Your task to perform on an android device: turn on data saver in the chrome app Image 0: 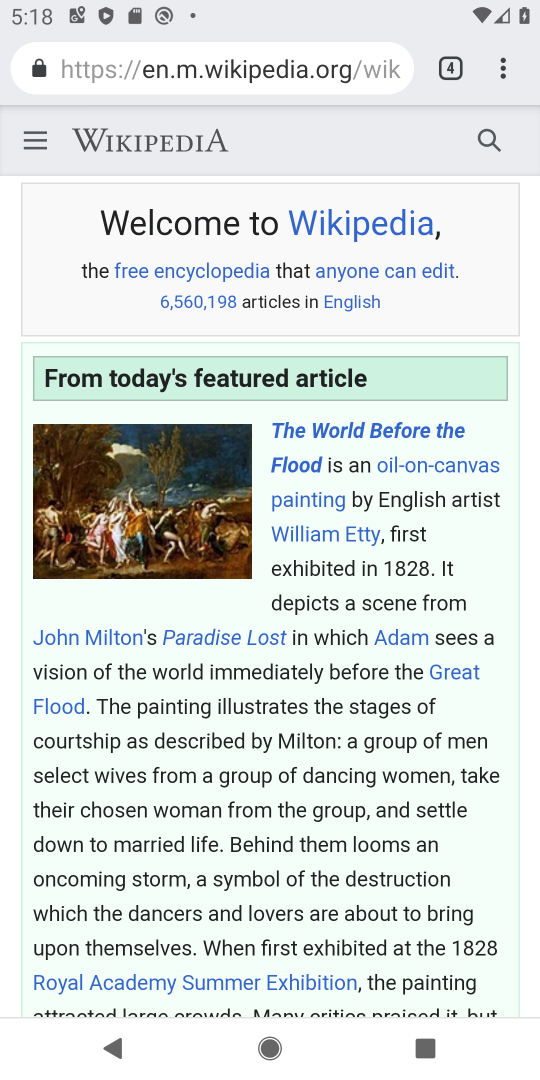
Step 0: click (504, 70)
Your task to perform on an android device: turn on data saver in the chrome app Image 1: 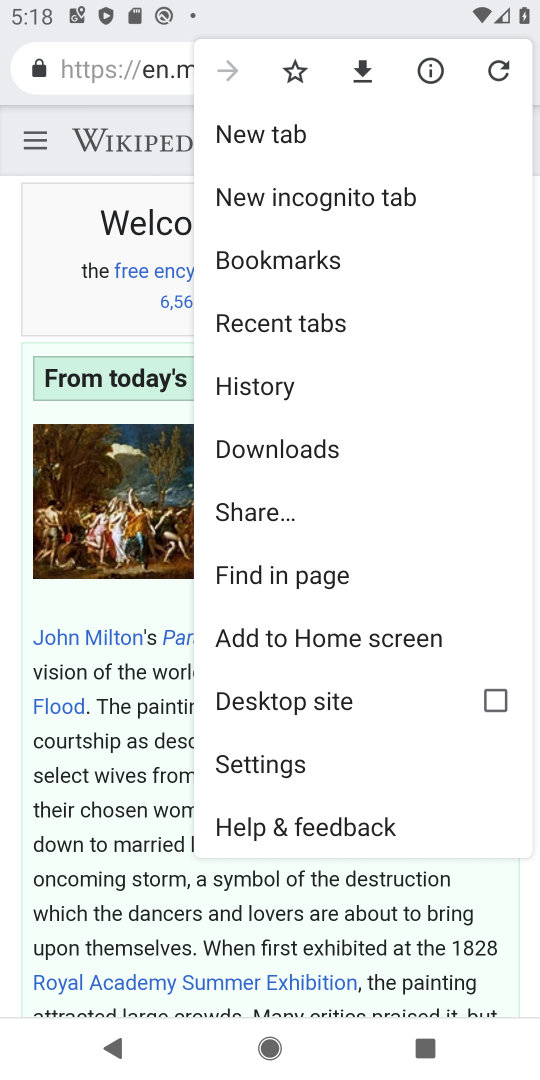
Step 1: click (278, 762)
Your task to perform on an android device: turn on data saver in the chrome app Image 2: 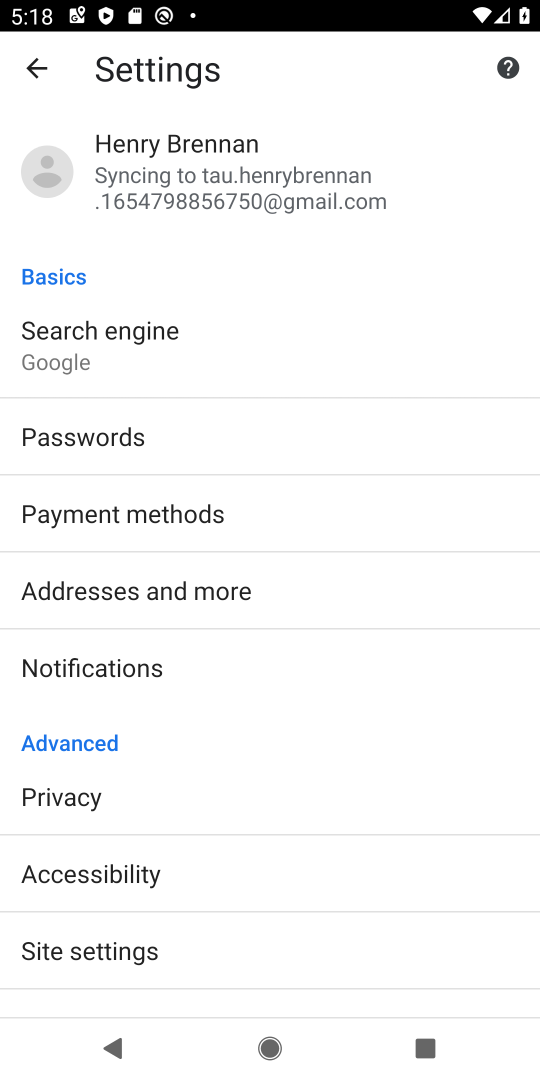
Step 2: drag from (116, 916) to (114, 420)
Your task to perform on an android device: turn on data saver in the chrome app Image 3: 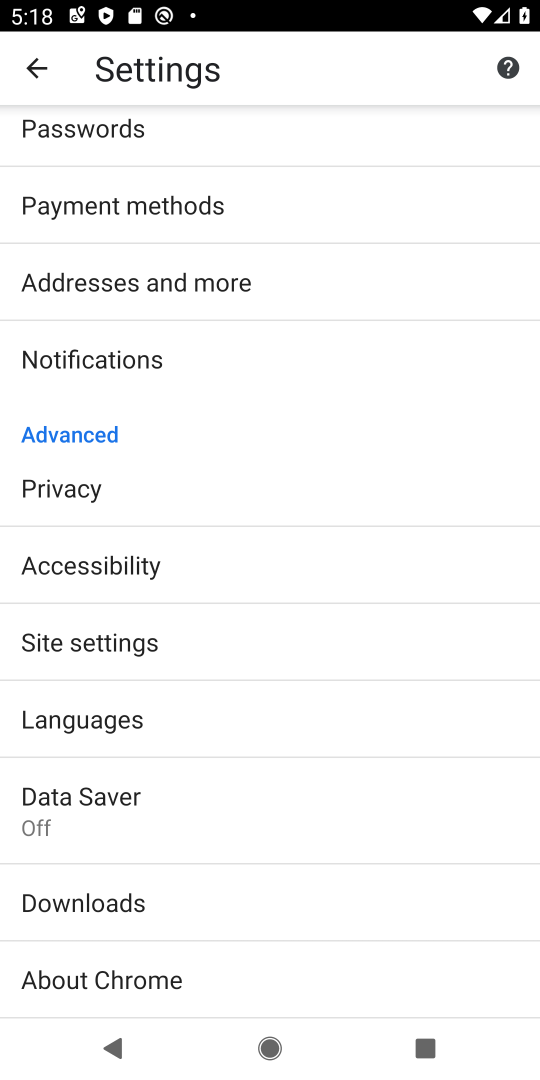
Step 3: click (79, 808)
Your task to perform on an android device: turn on data saver in the chrome app Image 4: 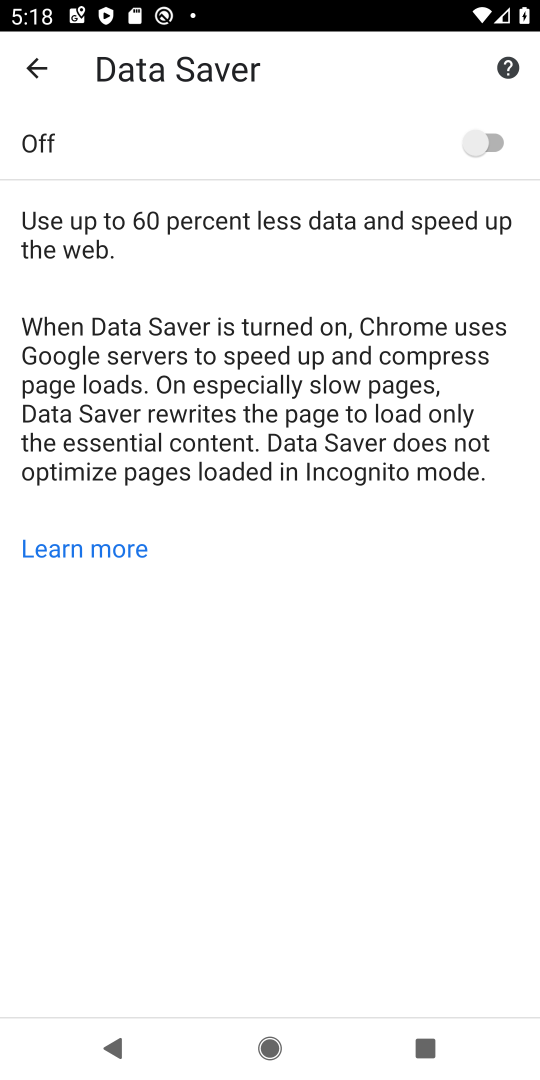
Step 4: click (500, 146)
Your task to perform on an android device: turn on data saver in the chrome app Image 5: 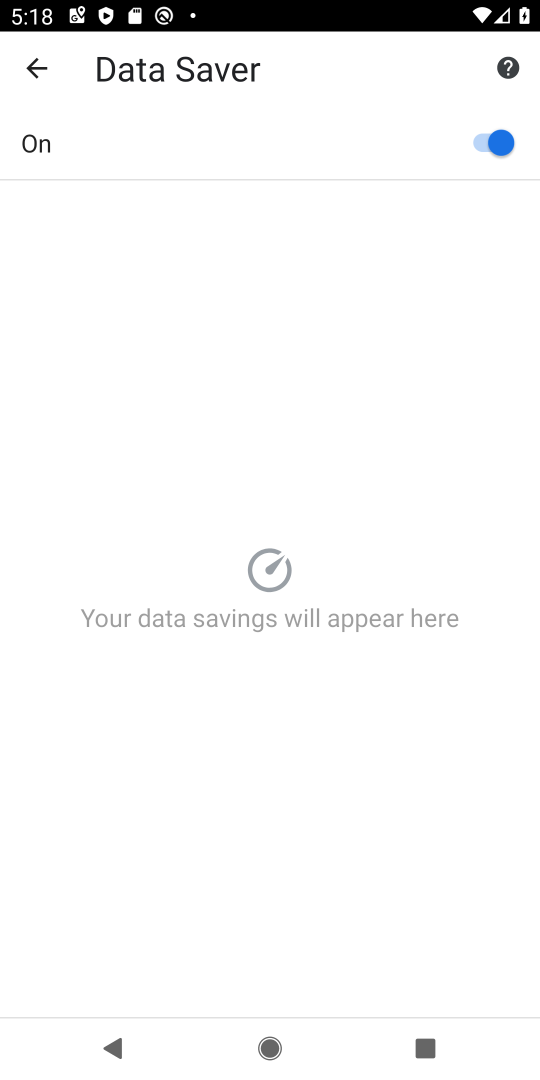
Step 5: task complete